Your task to perform on an android device: toggle show notifications on the lock screen Image 0: 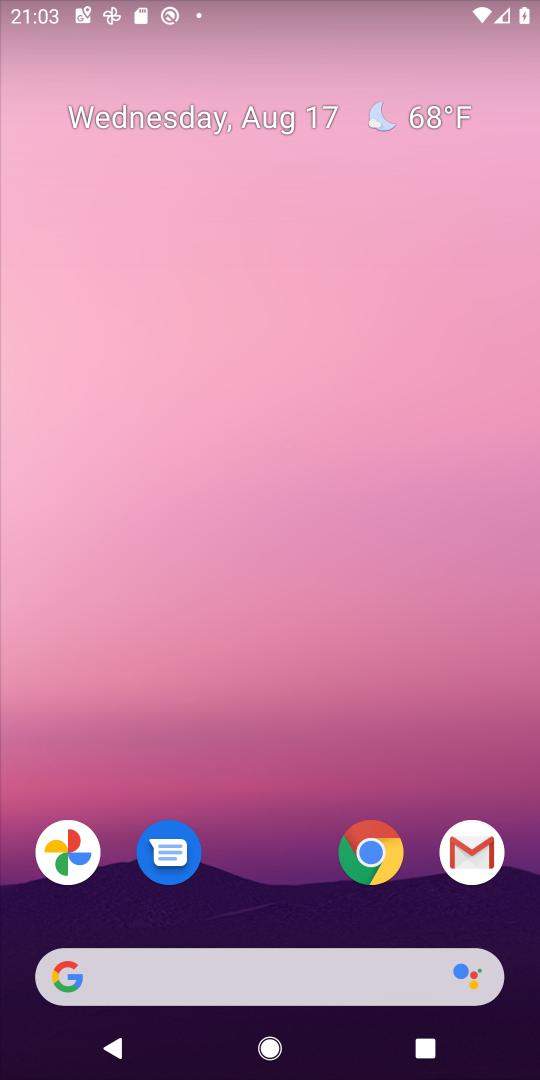
Step 0: drag from (271, 891) to (336, 236)
Your task to perform on an android device: toggle show notifications on the lock screen Image 1: 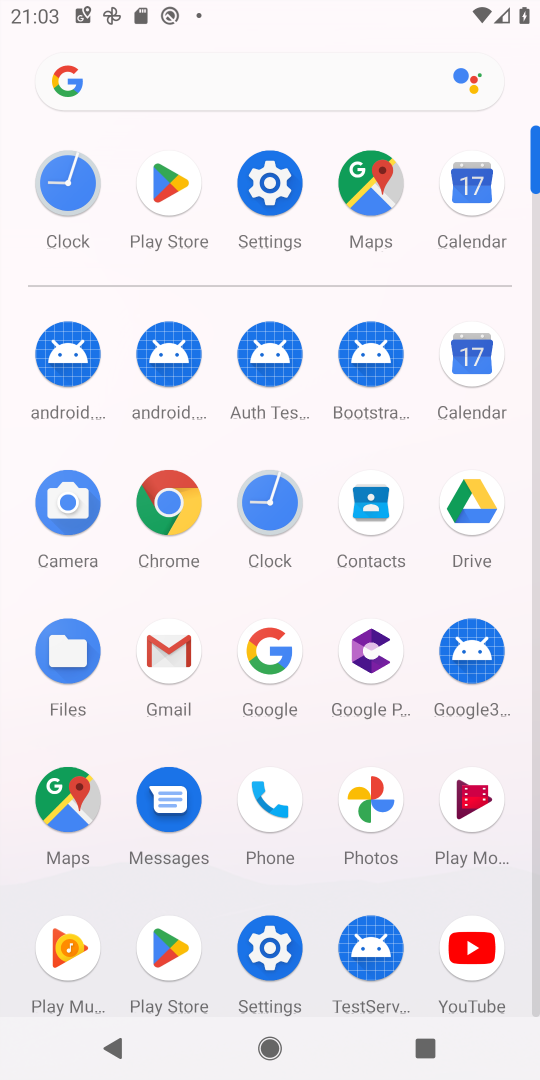
Step 1: click (268, 181)
Your task to perform on an android device: toggle show notifications on the lock screen Image 2: 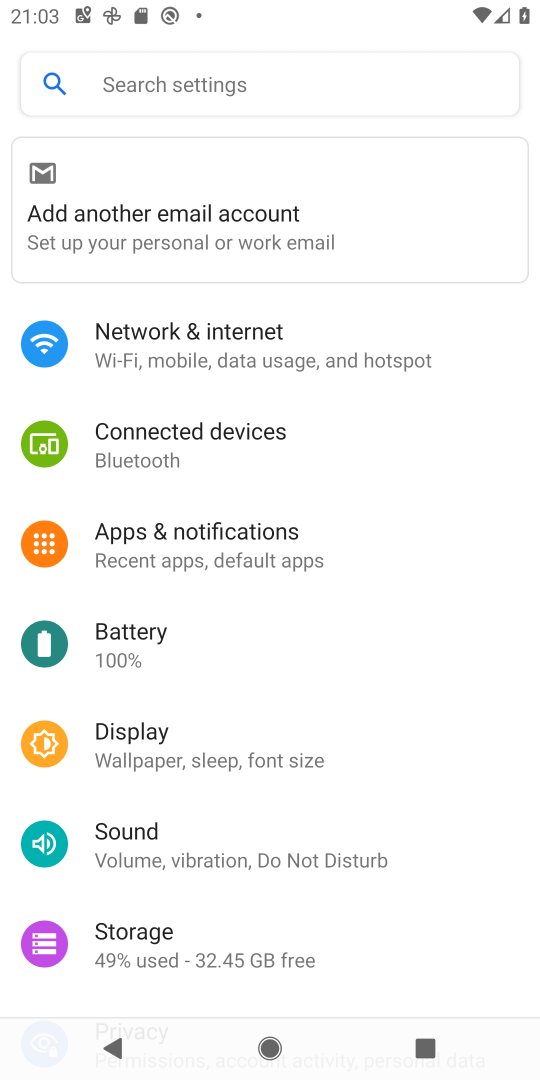
Step 2: click (222, 528)
Your task to perform on an android device: toggle show notifications on the lock screen Image 3: 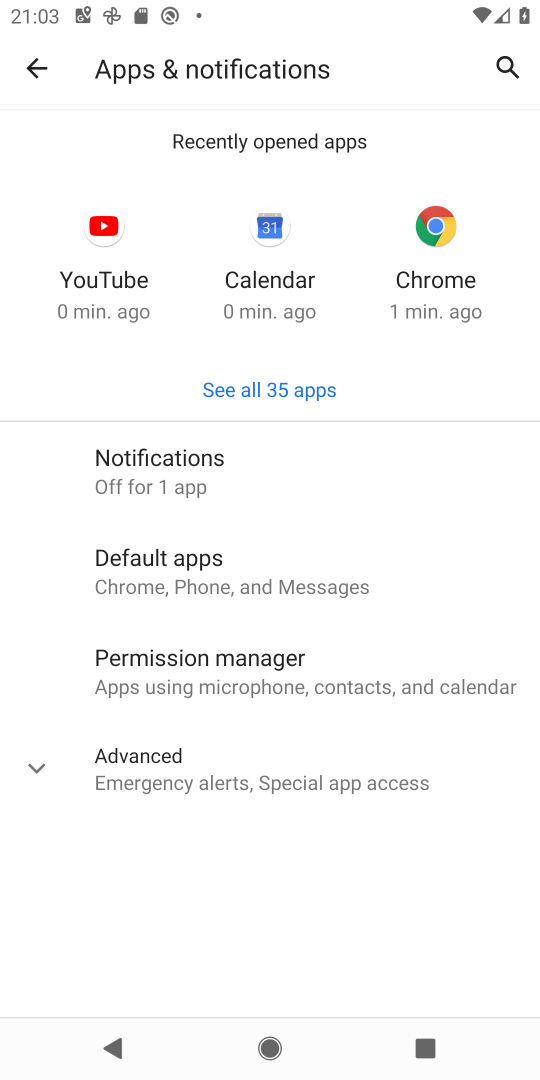
Step 3: click (175, 454)
Your task to perform on an android device: toggle show notifications on the lock screen Image 4: 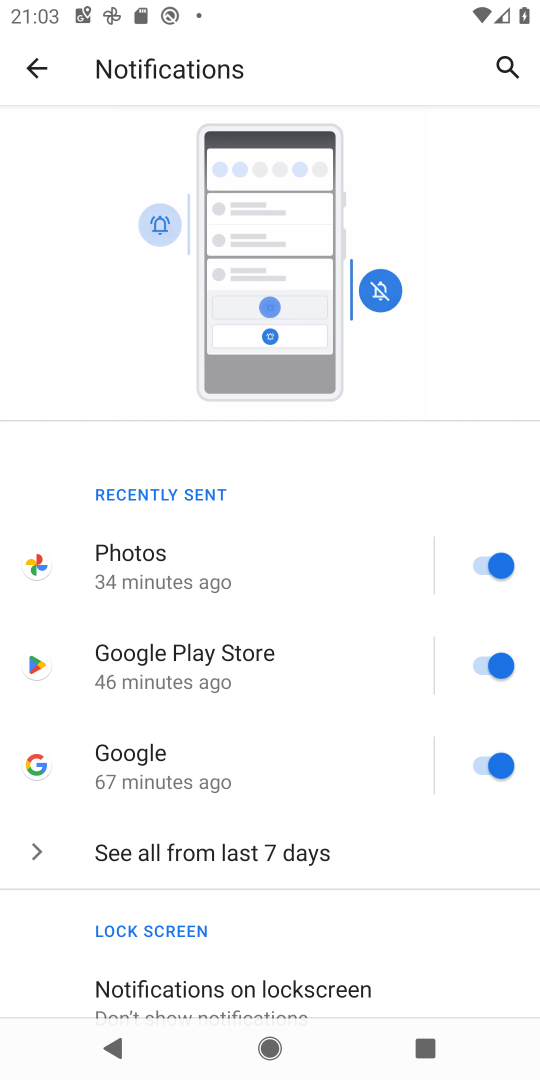
Step 4: click (207, 984)
Your task to perform on an android device: toggle show notifications on the lock screen Image 5: 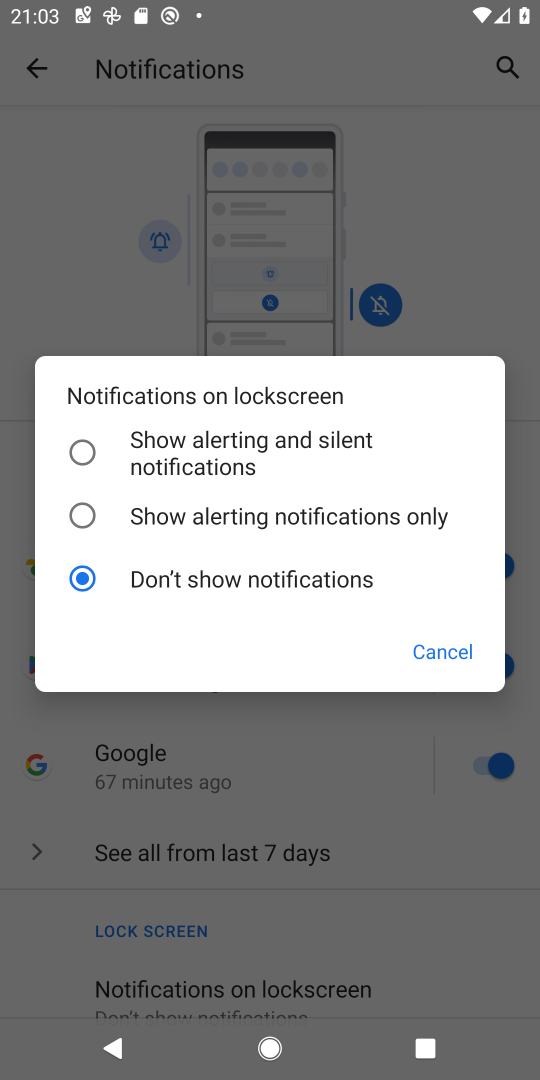
Step 5: click (79, 447)
Your task to perform on an android device: toggle show notifications on the lock screen Image 6: 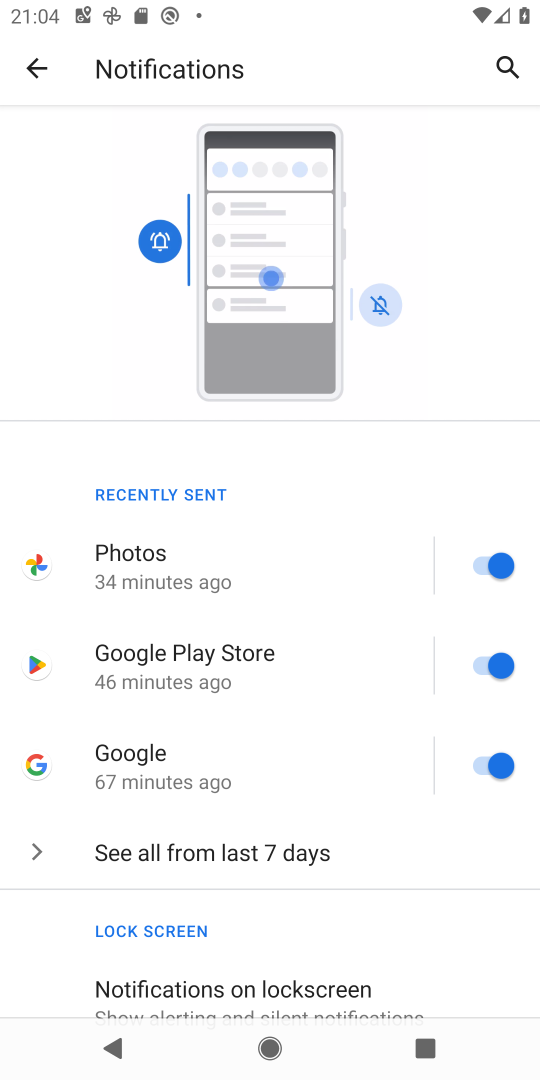
Step 6: task complete